Your task to perform on an android device: turn off javascript in the chrome app Image 0: 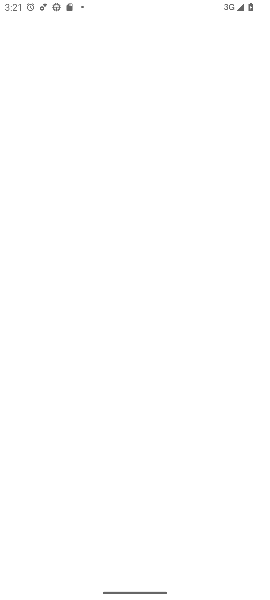
Step 0: press home button
Your task to perform on an android device: turn off javascript in the chrome app Image 1: 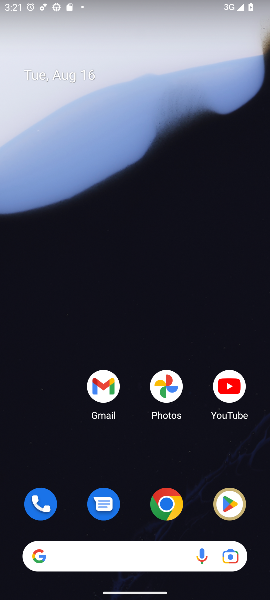
Step 1: click (167, 503)
Your task to perform on an android device: turn off javascript in the chrome app Image 2: 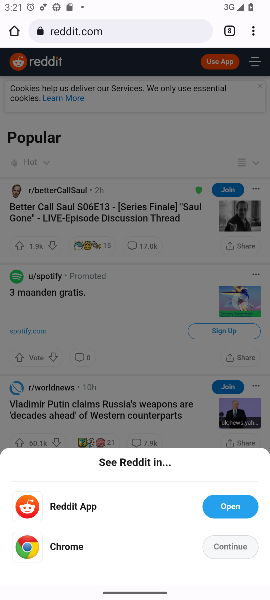
Step 2: click (227, 544)
Your task to perform on an android device: turn off javascript in the chrome app Image 3: 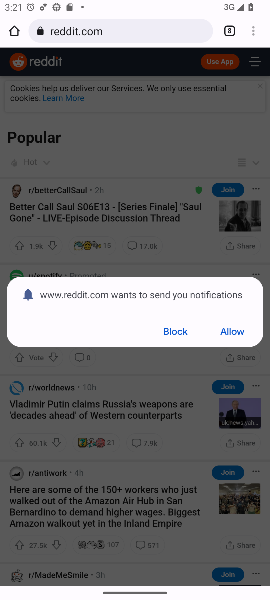
Step 3: click (222, 334)
Your task to perform on an android device: turn off javascript in the chrome app Image 4: 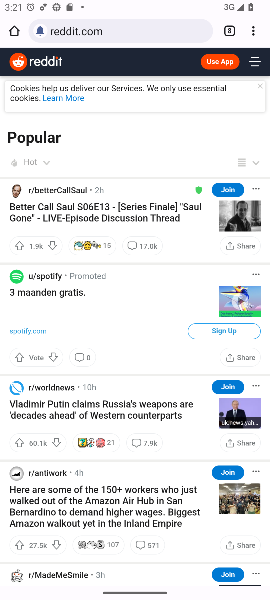
Step 4: click (249, 21)
Your task to perform on an android device: turn off javascript in the chrome app Image 5: 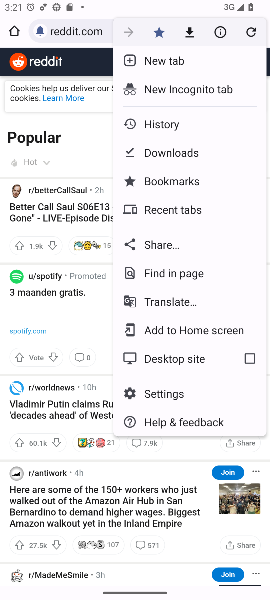
Step 5: click (153, 389)
Your task to perform on an android device: turn off javascript in the chrome app Image 6: 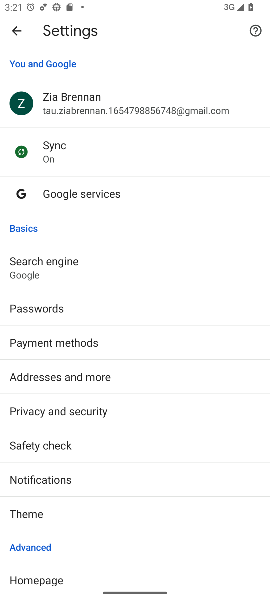
Step 6: drag from (133, 510) to (81, 141)
Your task to perform on an android device: turn off javascript in the chrome app Image 7: 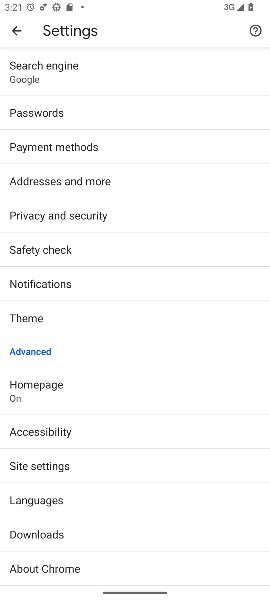
Step 7: click (45, 463)
Your task to perform on an android device: turn off javascript in the chrome app Image 8: 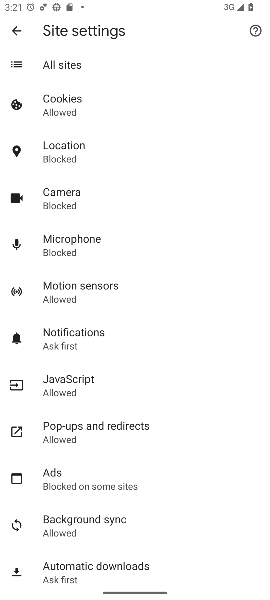
Step 8: click (69, 388)
Your task to perform on an android device: turn off javascript in the chrome app Image 9: 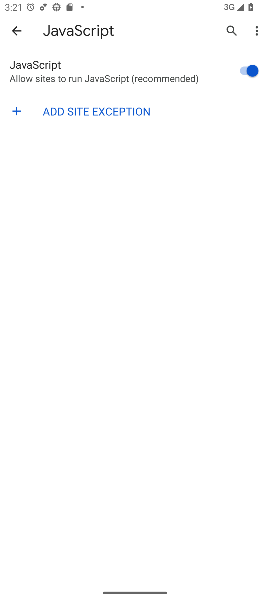
Step 9: click (255, 65)
Your task to perform on an android device: turn off javascript in the chrome app Image 10: 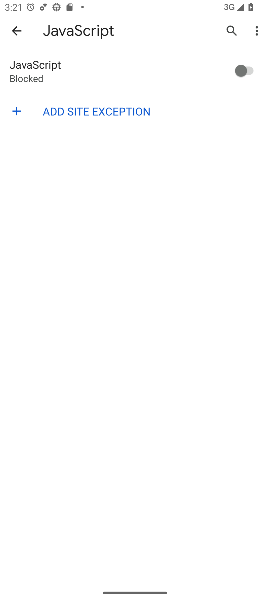
Step 10: task complete